Your task to perform on an android device: toggle improve location accuracy Image 0: 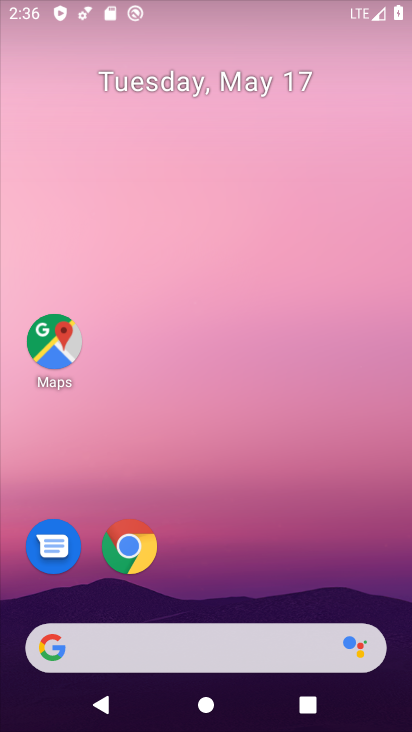
Step 0: press home button
Your task to perform on an android device: toggle improve location accuracy Image 1: 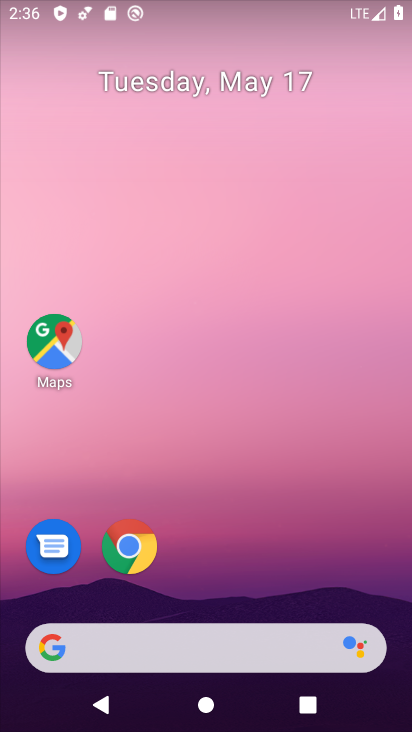
Step 1: drag from (300, 569) to (267, 30)
Your task to perform on an android device: toggle improve location accuracy Image 2: 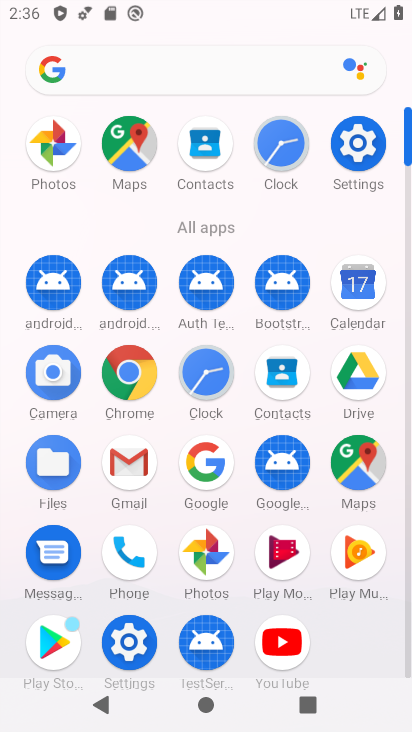
Step 2: click (129, 642)
Your task to perform on an android device: toggle improve location accuracy Image 3: 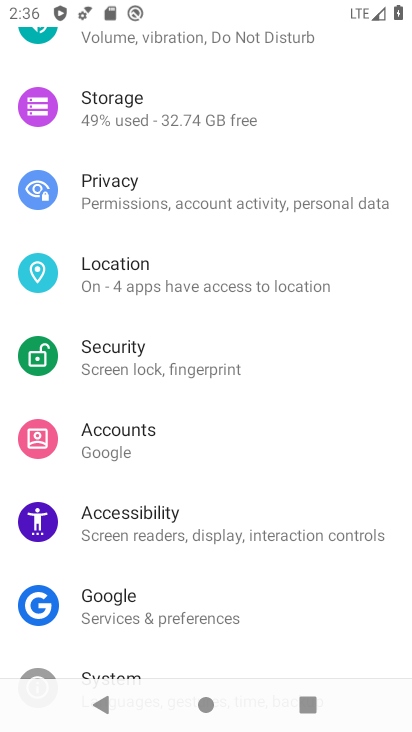
Step 3: drag from (127, 620) to (157, 307)
Your task to perform on an android device: toggle improve location accuracy Image 4: 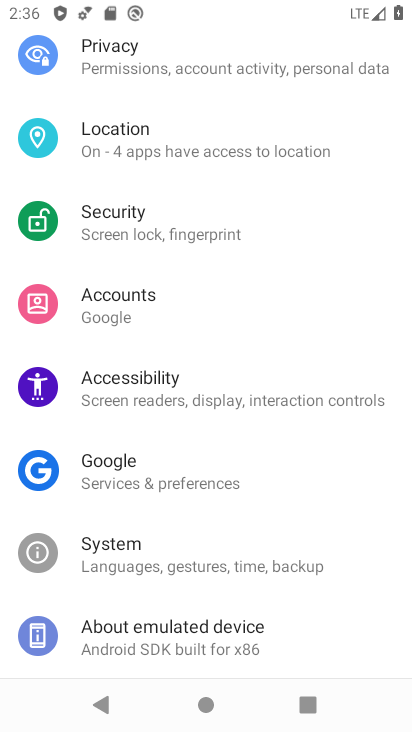
Step 4: click (158, 145)
Your task to perform on an android device: toggle improve location accuracy Image 5: 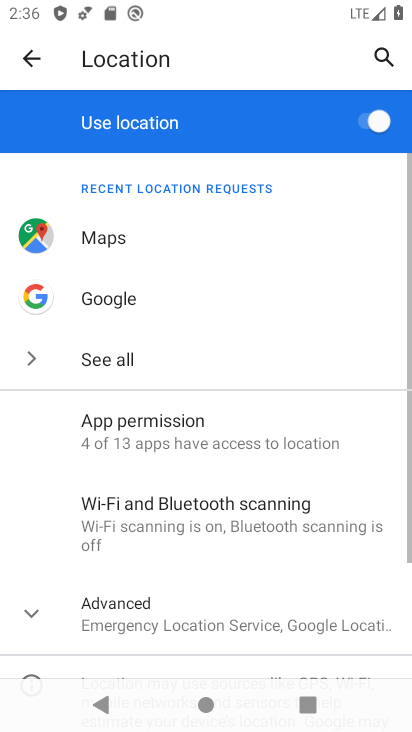
Step 5: drag from (198, 576) to (194, 210)
Your task to perform on an android device: toggle improve location accuracy Image 6: 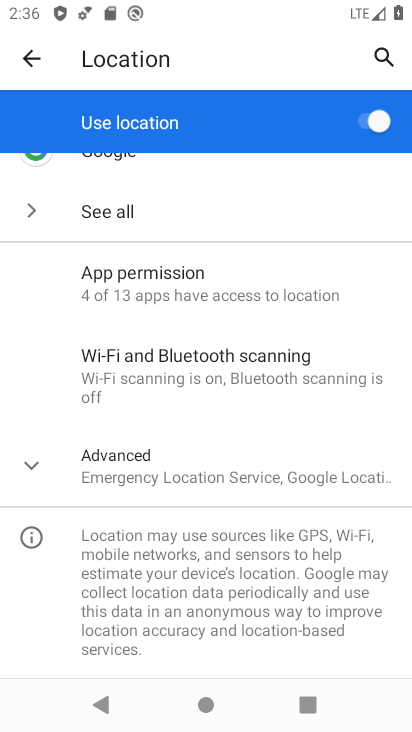
Step 6: click (138, 468)
Your task to perform on an android device: toggle improve location accuracy Image 7: 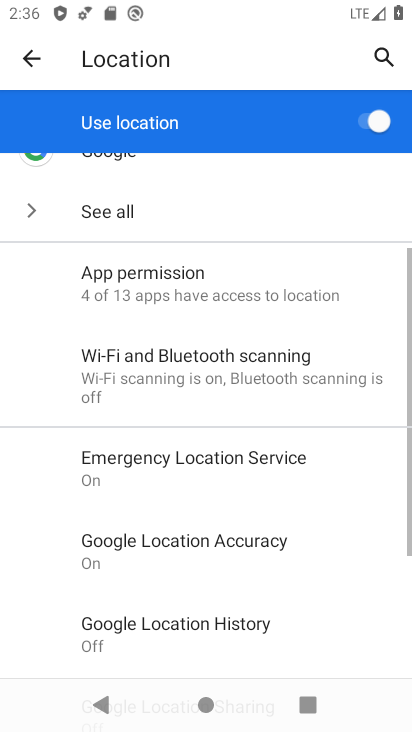
Step 7: click (155, 531)
Your task to perform on an android device: toggle improve location accuracy Image 8: 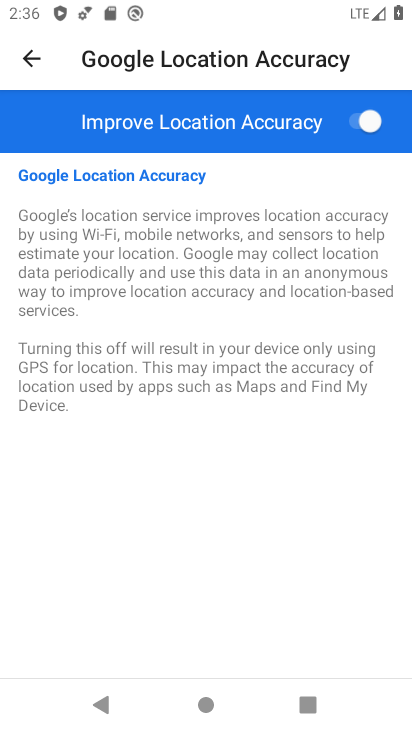
Step 8: click (369, 120)
Your task to perform on an android device: toggle improve location accuracy Image 9: 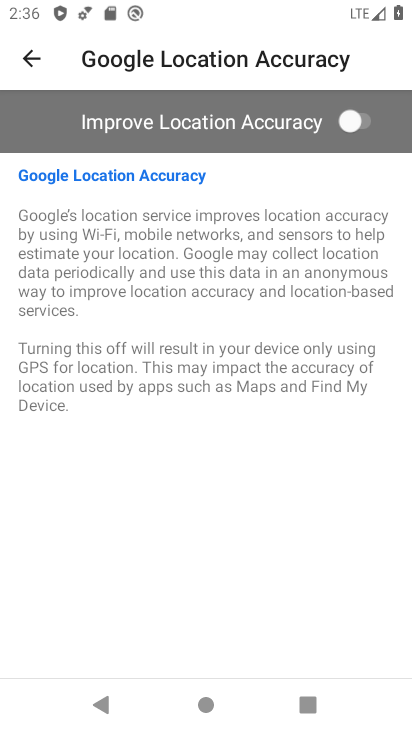
Step 9: task complete